Your task to perform on an android device: turn off sleep mode Image 0: 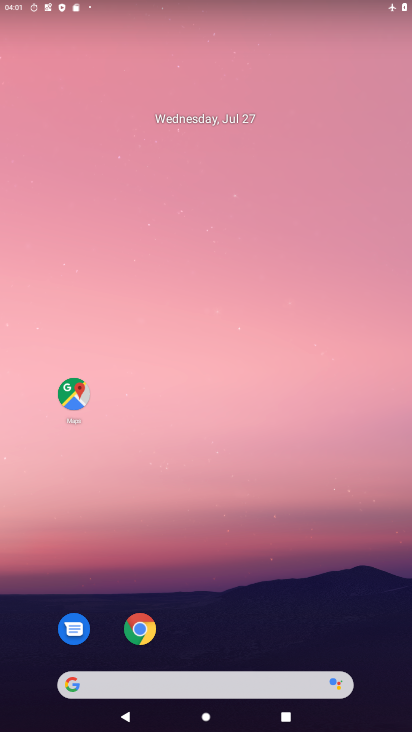
Step 0: drag from (262, 213) to (264, 5)
Your task to perform on an android device: turn off sleep mode Image 1: 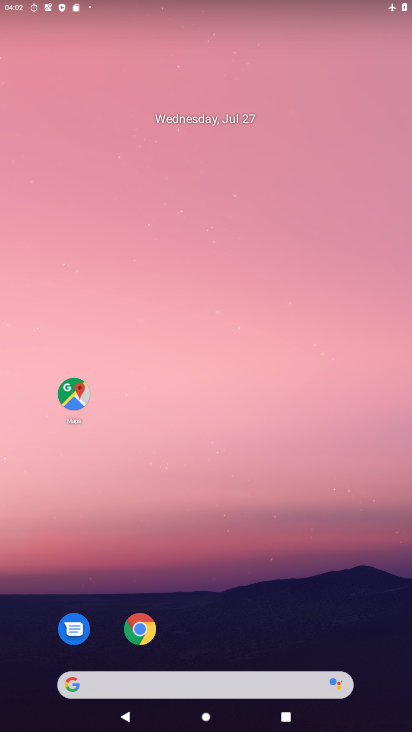
Step 1: drag from (287, 538) to (244, 75)
Your task to perform on an android device: turn off sleep mode Image 2: 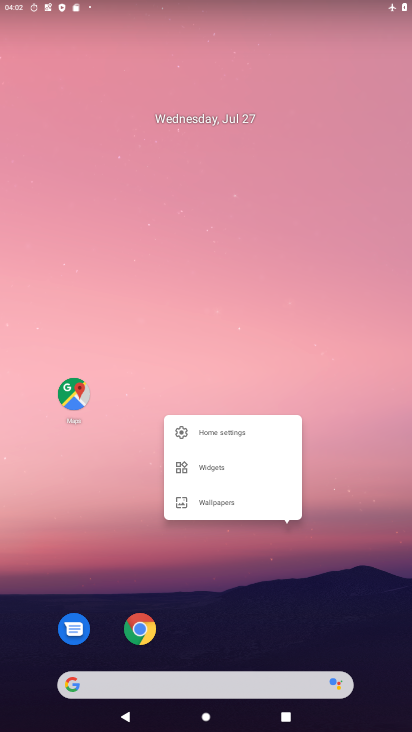
Step 2: drag from (324, 440) to (287, 23)
Your task to perform on an android device: turn off sleep mode Image 3: 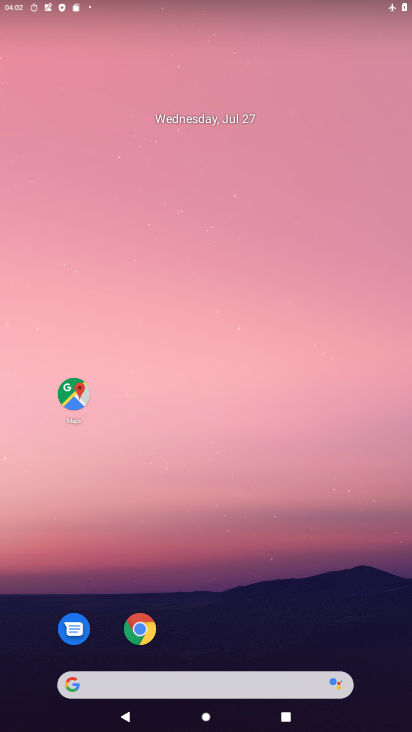
Step 3: drag from (227, 479) to (171, 56)
Your task to perform on an android device: turn off sleep mode Image 4: 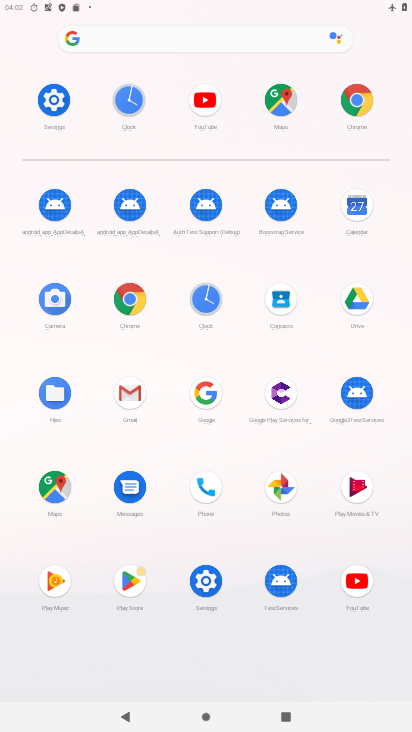
Step 4: click (61, 106)
Your task to perform on an android device: turn off sleep mode Image 5: 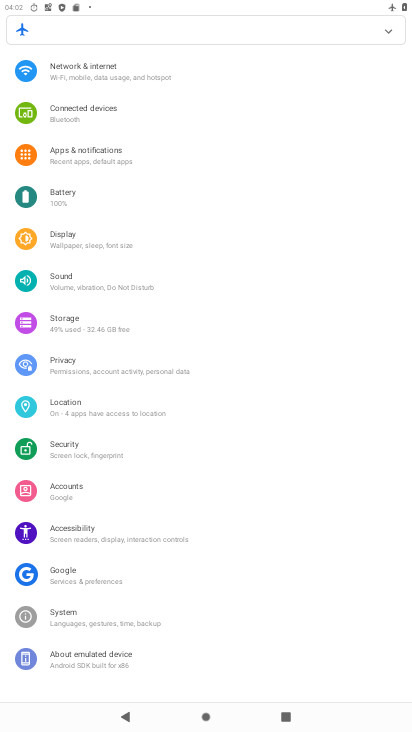
Step 5: click (96, 249)
Your task to perform on an android device: turn off sleep mode Image 6: 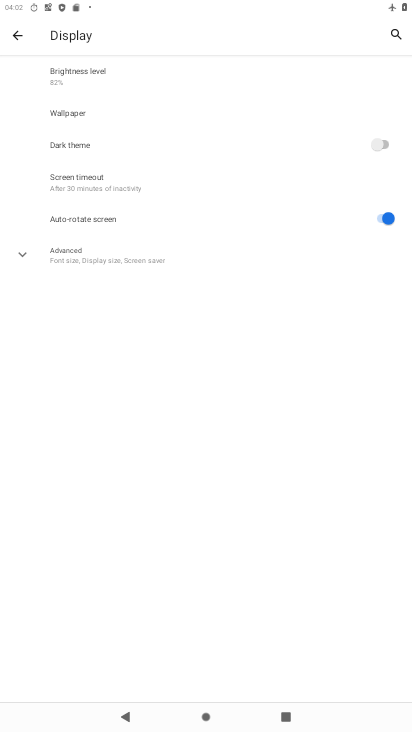
Step 6: click (148, 182)
Your task to perform on an android device: turn off sleep mode Image 7: 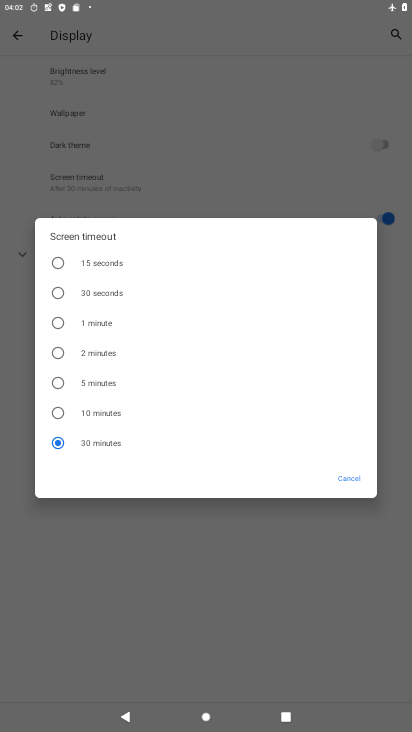
Step 7: task complete